Your task to perform on an android device: Open settings on Google Maps Image 0: 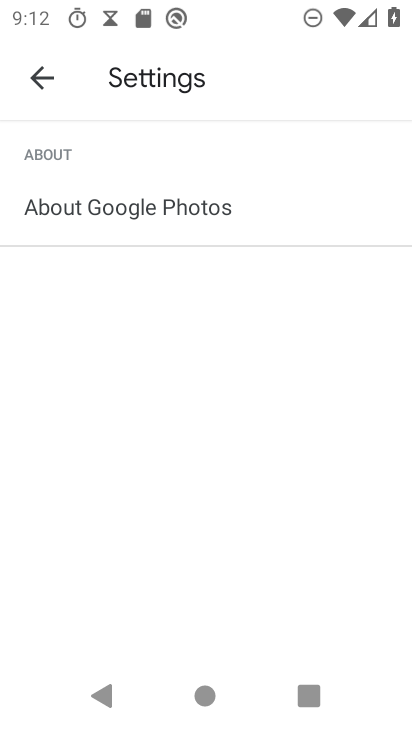
Step 0: press home button
Your task to perform on an android device: Open settings on Google Maps Image 1: 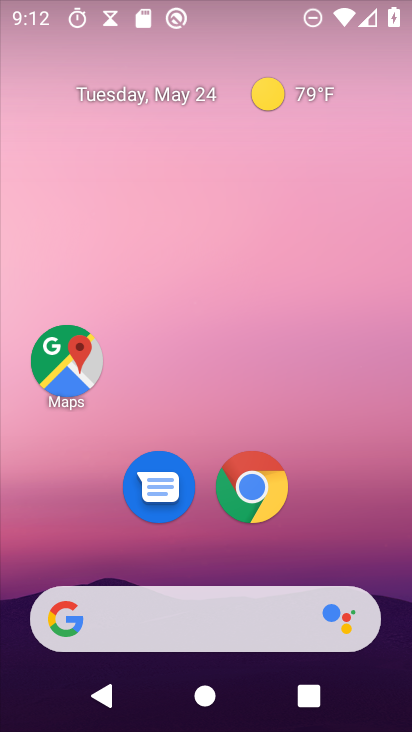
Step 1: click (72, 367)
Your task to perform on an android device: Open settings on Google Maps Image 2: 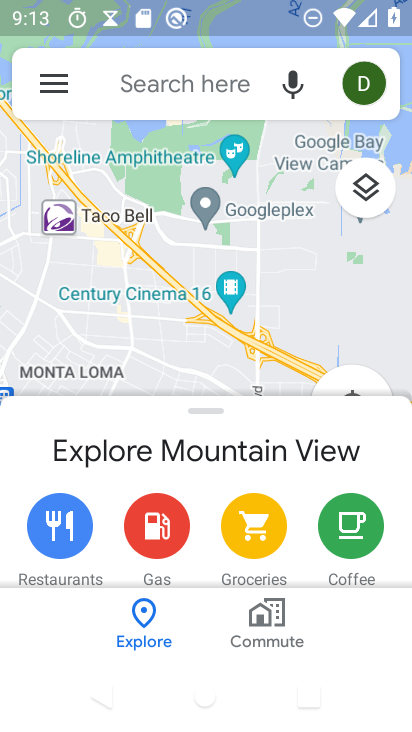
Step 2: click (49, 95)
Your task to perform on an android device: Open settings on Google Maps Image 3: 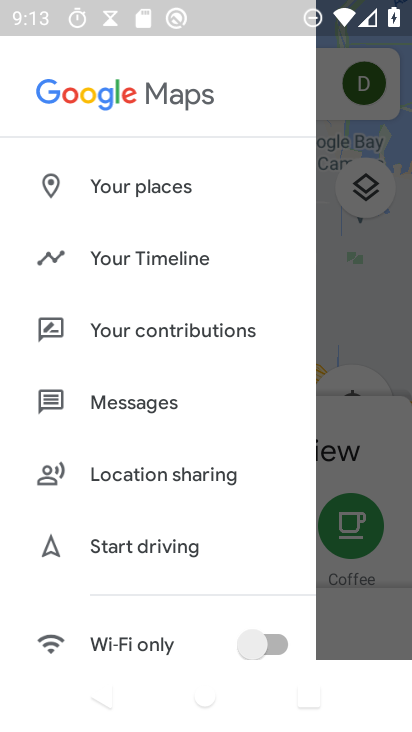
Step 3: drag from (101, 542) to (250, 115)
Your task to perform on an android device: Open settings on Google Maps Image 4: 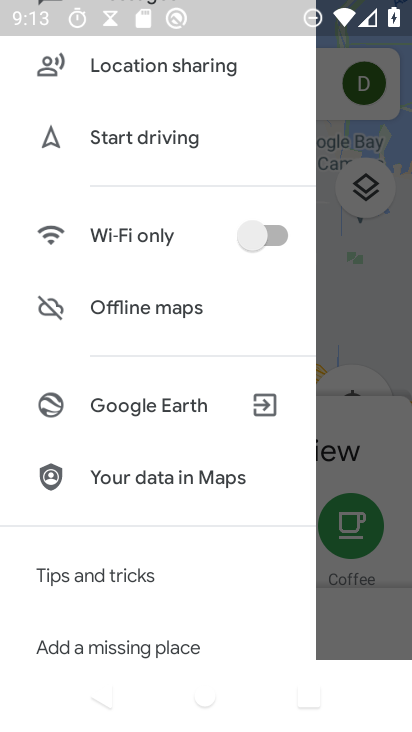
Step 4: drag from (20, 550) to (225, 40)
Your task to perform on an android device: Open settings on Google Maps Image 5: 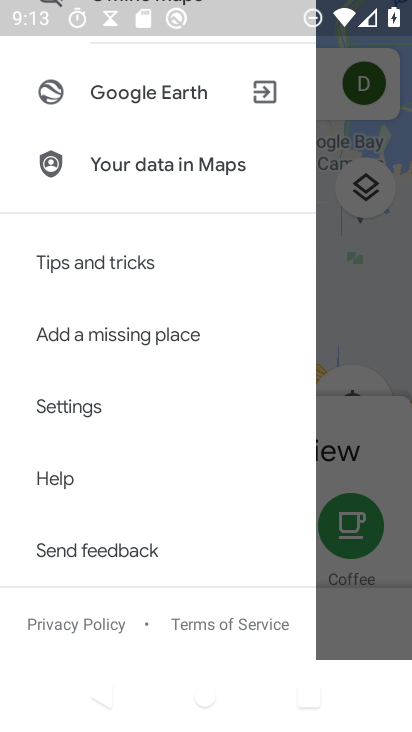
Step 5: click (83, 416)
Your task to perform on an android device: Open settings on Google Maps Image 6: 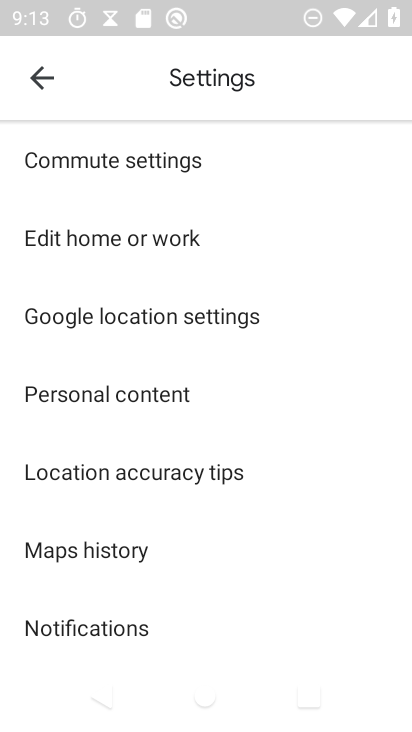
Step 6: task complete